Your task to perform on an android device: Open Chrome and go to settings Image 0: 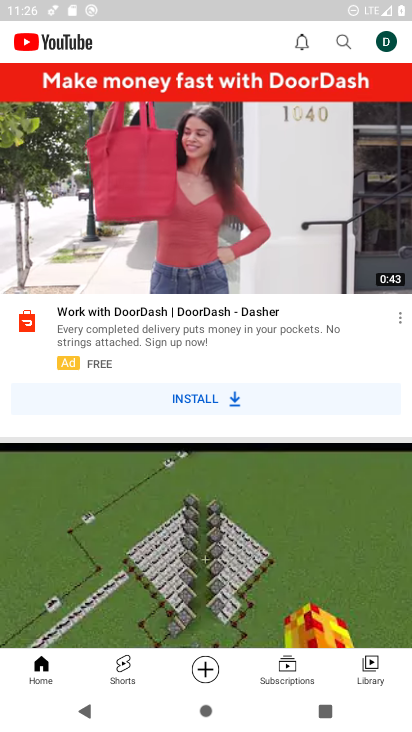
Step 0: press home button
Your task to perform on an android device: Open Chrome and go to settings Image 1: 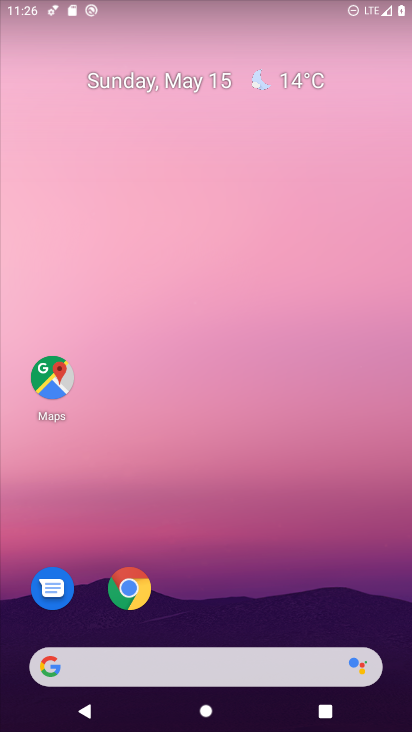
Step 1: press home button
Your task to perform on an android device: Open Chrome and go to settings Image 2: 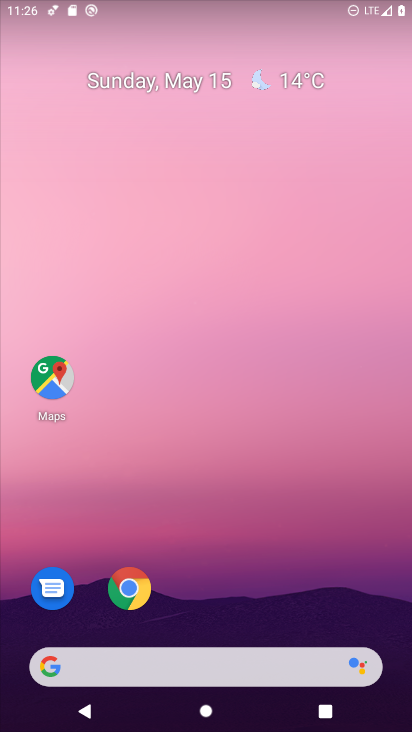
Step 2: click (133, 585)
Your task to perform on an android device: Open Chrome and go to settings Image 3: 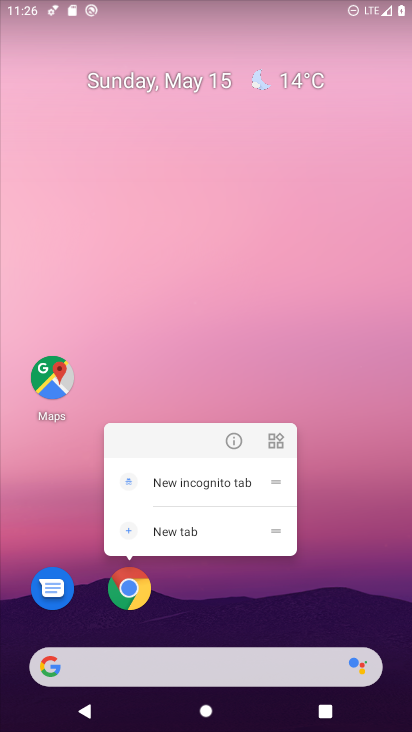
Step 3: click (126, 594)
Your task to perform on an android device: Open Chrome and go to settings Image 4: 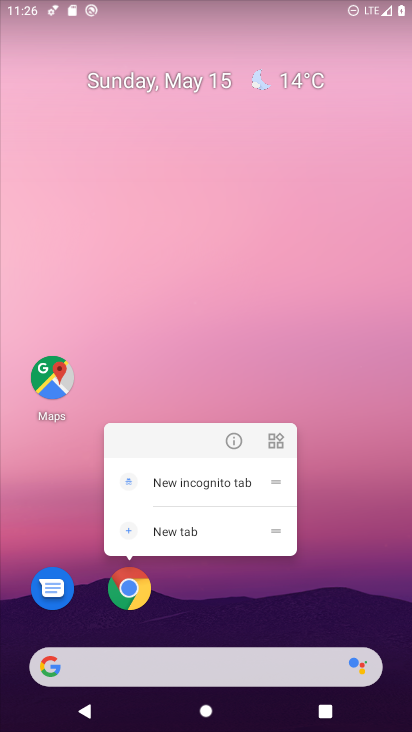
Step 4: click (136, 603)
Your task to perform on an android device: Open Chrome and go to settings Image 5: 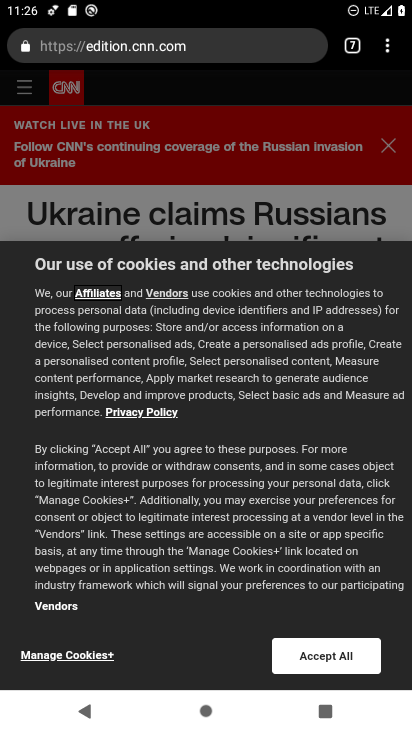
Step 5: click (214, 54)
Your task to perform on an android device: Open Chrome and go to settings Image 6: 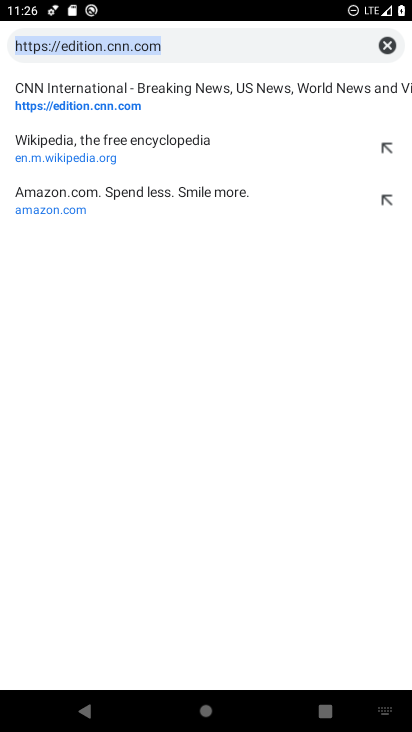
Step 6: press back button
Your task to perform on an android device: Open Chrome and go to settings Image 7: 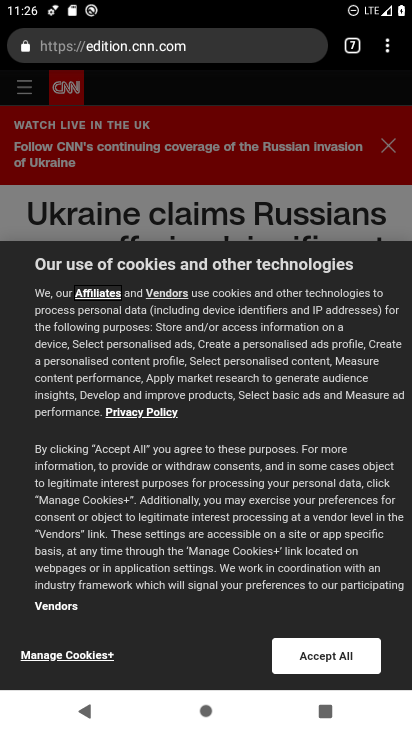
Step 7: click (381, 37)
Your task to perform on an android device: Open Chrome and go to settings Image 8: 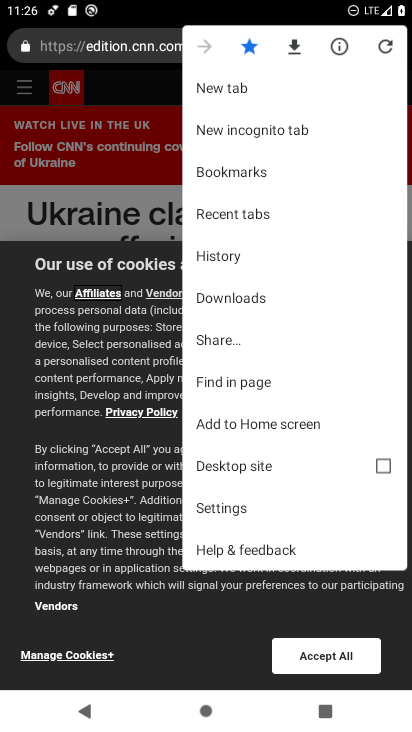
Step 8: click (228, 500)
Your task to perform on an android device: Open Chrome and go to settings Image 9: 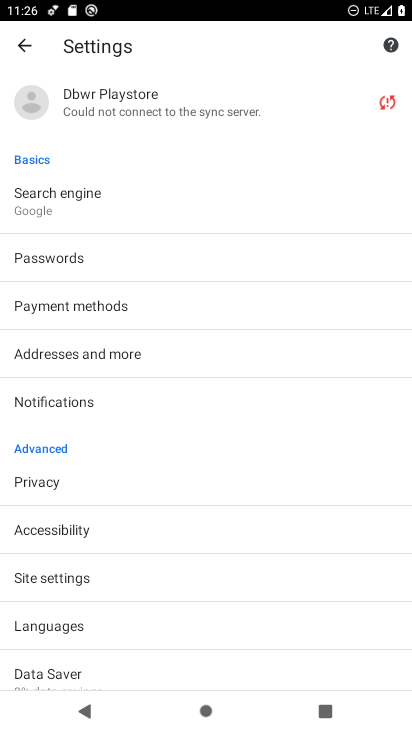
Step 9: task complete